Your task to perform on an android device: make emails show in primary in the gmail app Image 0: 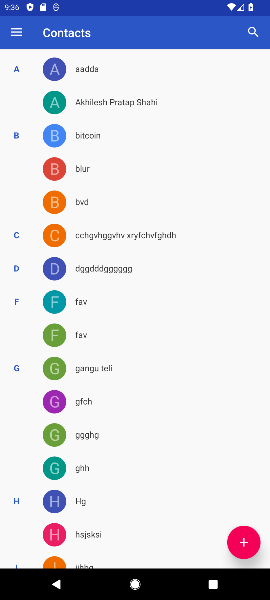
Step 0: press home button
Your task to perform on an android device: make emails show in primary in the gmail app Image 1: 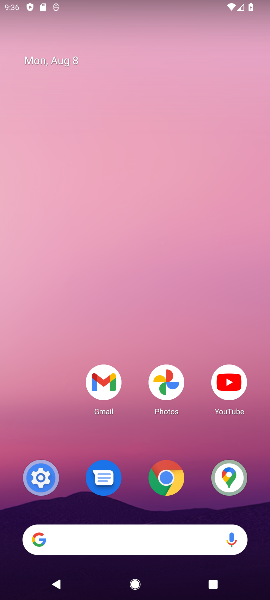
Step 1: drag from (182, 515) to (127, 99)
Your task to perform on an android device: make emails show in primary in the gmail app Image 2: 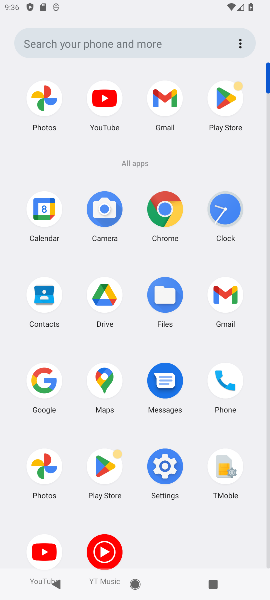
Step 2: click (228, 264)
Your task to perform on an android device: make emails show in primary in the gmail app Image 3: 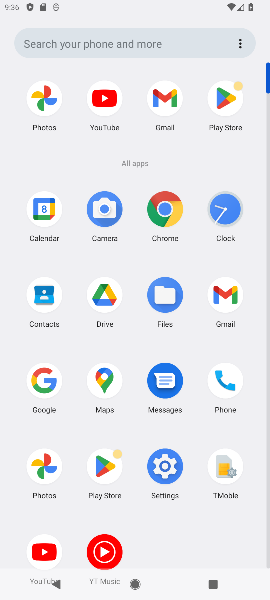
Step 3: click (225, 287)
Your task to perform on an android device: make emails show in primary in the gmail app Image 4: 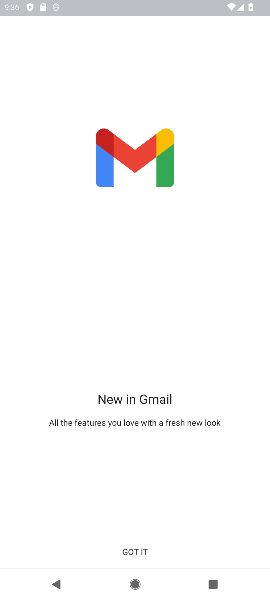
Step 4: click (145, 552)
Your task to perform on an android device: make emails show in primary in the gmail app Image 5: 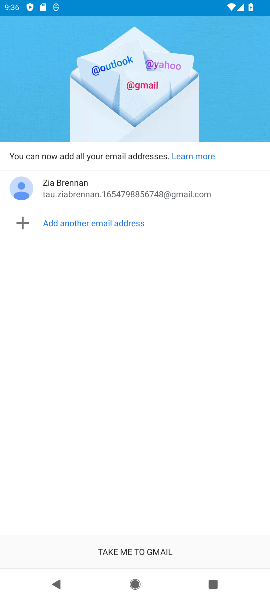
Step 5: click (126, 557)
Your task to perform on an android device: make emails show in primary in the gmail app Image 6: 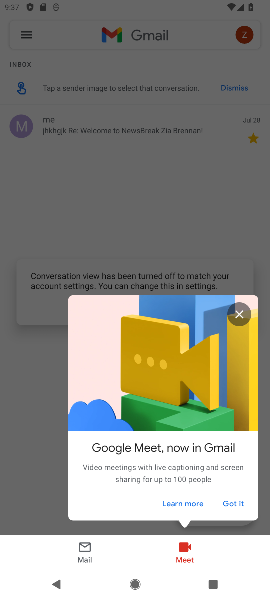
Step 6: click (247, 499)
Your task to perform on an android device: make emails show in primary in the gmail app Image 7: 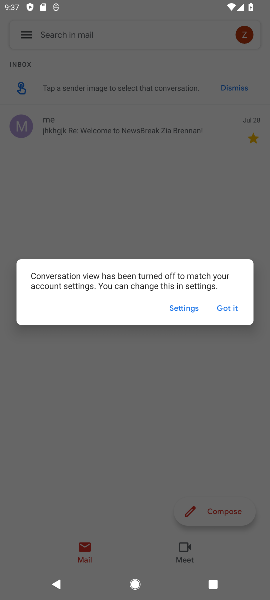
Step 7: click (227, 309)
Your task to perform on an android device: make emails show in primary in the gmail app Image 8: 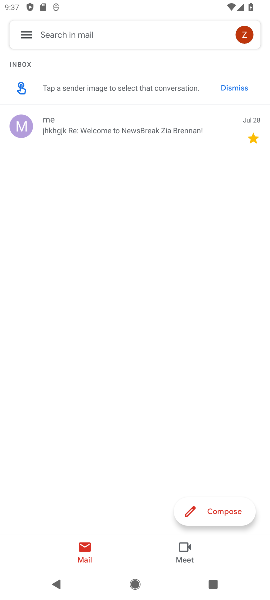
Step 8: click (20, 31)
Your task to perform on an android device: make emails show in primary in the gmail app Image 9: 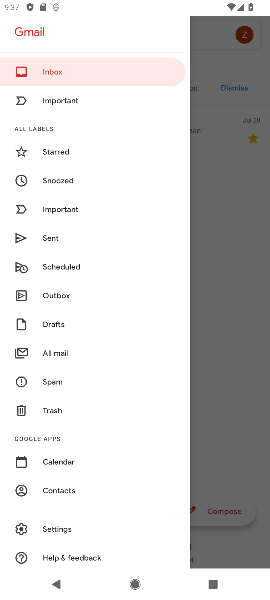
Step 9: click (64, 530)
Your task to perform on an android device: make emails show in primary in the gmail app Image 10: 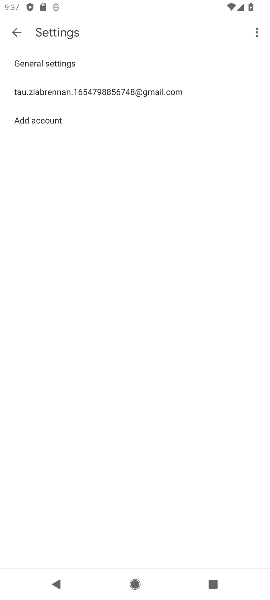
Step 10: click (13, 98)
Your task to perform on an android device: make emails show in primary in the gmail app Image 11: 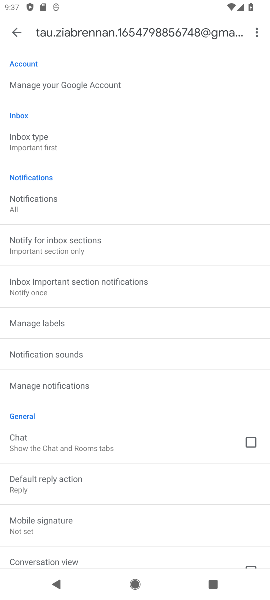
Step 11: drag from (44, 486) to (45, 156)
Your task to perform on an android device: make emails show in primary in the gmail app Image 12: 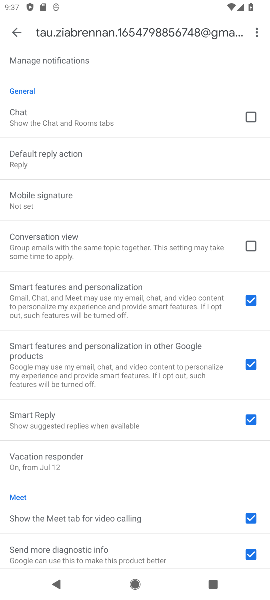
Step 12: drag from (146, 423) to (105, 167)
Your task to perform on an android device: make emails show in primary in the gmail app Image 13: 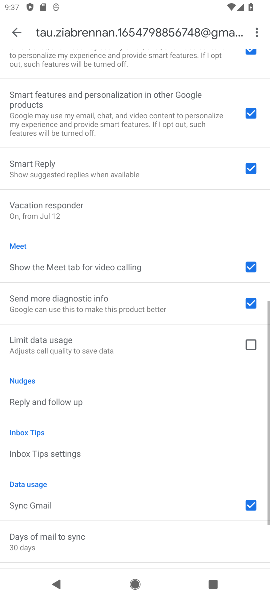
Step 13: drag from (217, 222) to (210, 570)
Your task to perform on an android device: make emails show in primary in the gmail app Image 14: 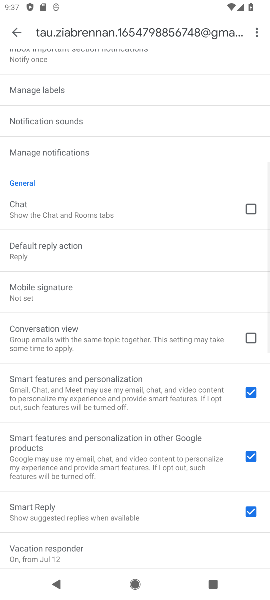
Step 14: drag from (183, 124) to (122, 566)
Your task to perform on an android device: make emails show in primary in the gmail app Image 15: 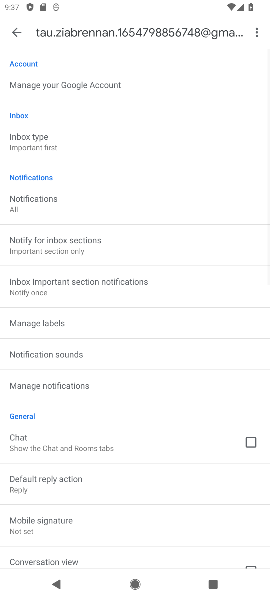
Step 15: click (51, 144)
Your task to perform on an android device: make emails show in primary in the gmail app Image 16: 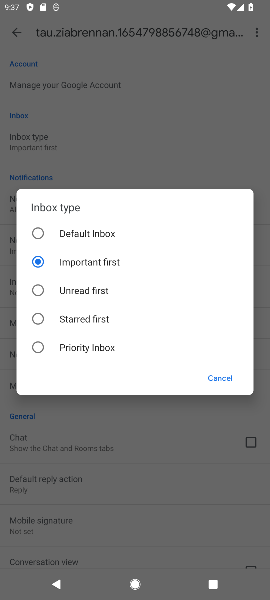
Step 16: click (74, 238)
Your task to perform on an android device: make emails show in primary in the gmail app Image 17: 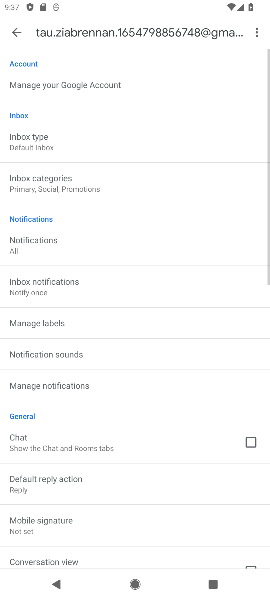
Step 17: click (16, 28)
Your task to perform on an android device: make emails show in primary in the gmail app Image 18: 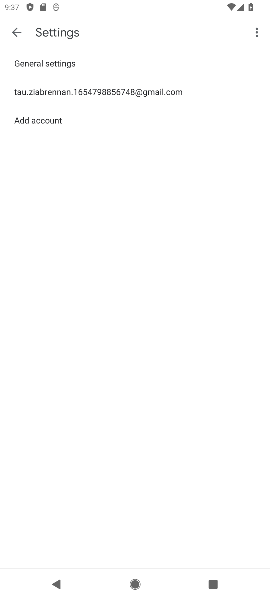
Step 18: click (15, 27)
Your task to perform on an android device: make emails show in primary in the gmail app Image 19: 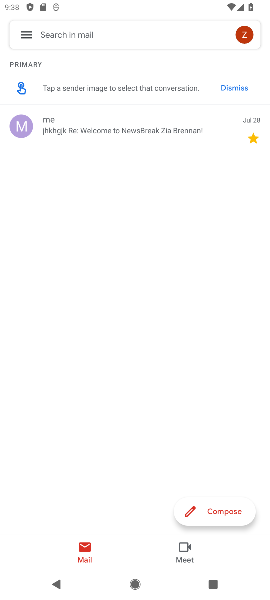
Step 19: task complete